Your task to perform on an android device: turn on translation in the chrome app Image 0: 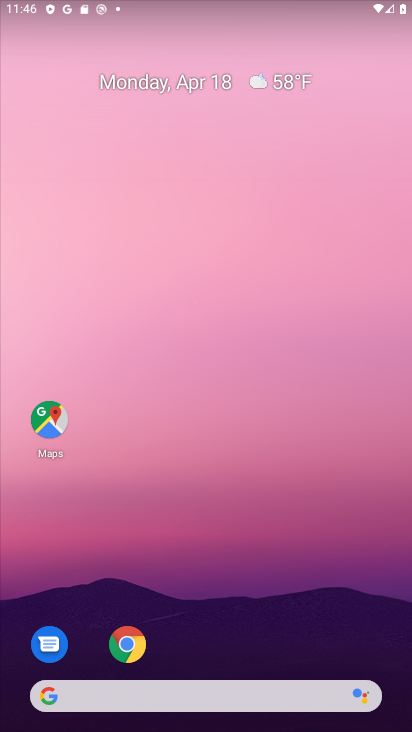
Step 0: click (315, 95)
Your task to perform on an android device: turn on translation in the chrome app Image 1: 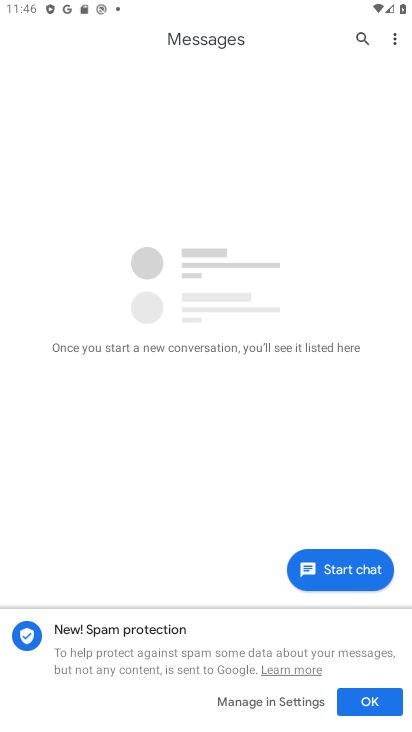
Step 1: drag from (265, 591) to (395, 14)
Your task to perform on an android device: turn on translation in the chrome app Image 2: 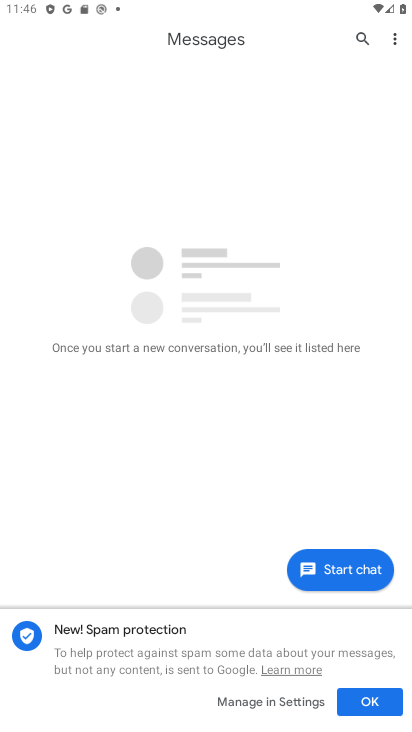
Step 2: press home button
Your task to perform on an android device: turn on translation in the chrome app Image 3: 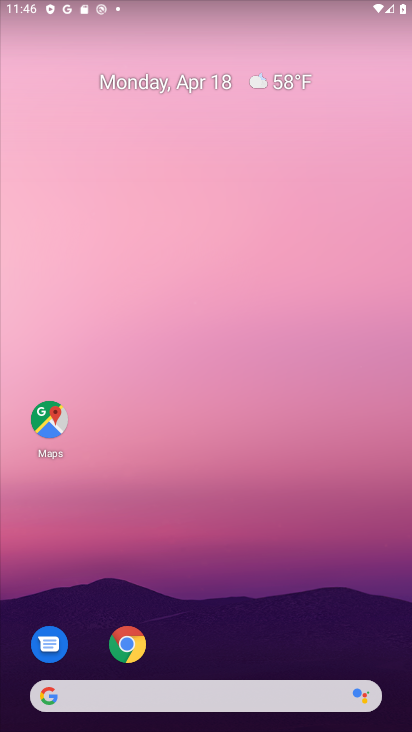
Step 3: click (120, 654)
Your task to perform on an android device: turn on translation in the chrome app Image 4: 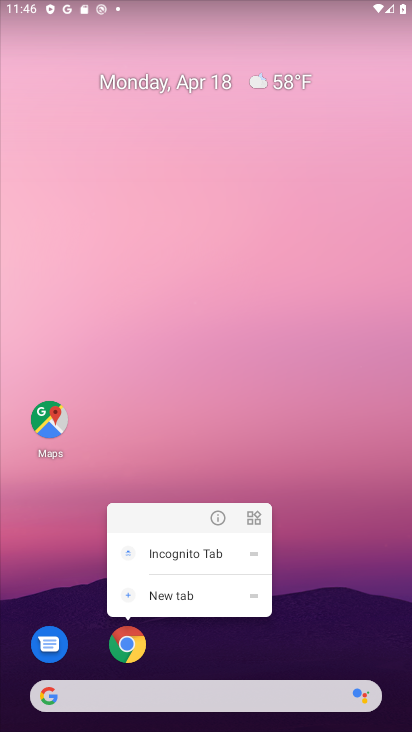
Step 4: click (131, 648)
Your task to perform on an android device: turn on translation in the chrome app Image 5: 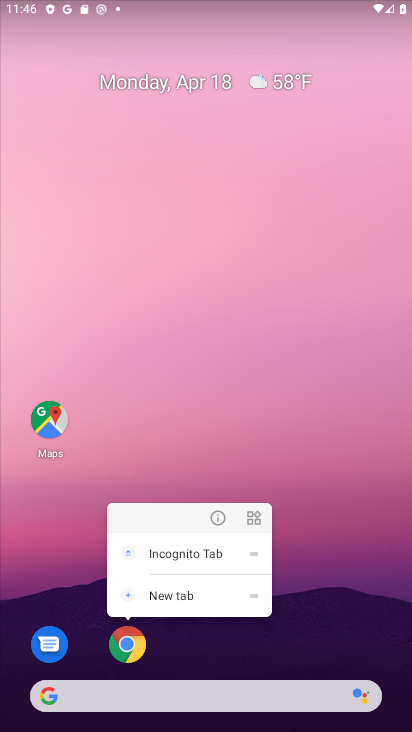
Step 5: click (131, 648)
Your task to perform on an android device: turn on translation in the chrome app Image 6: 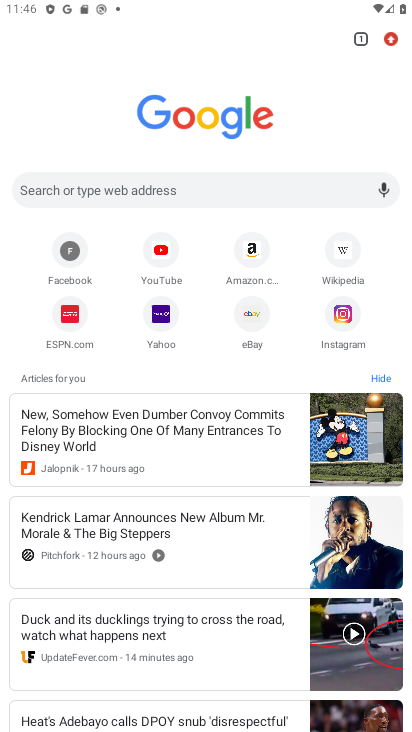
Step 6: click (387, 46)
Your task to perform on an android device: turn on translation in the chrome app Image 7: 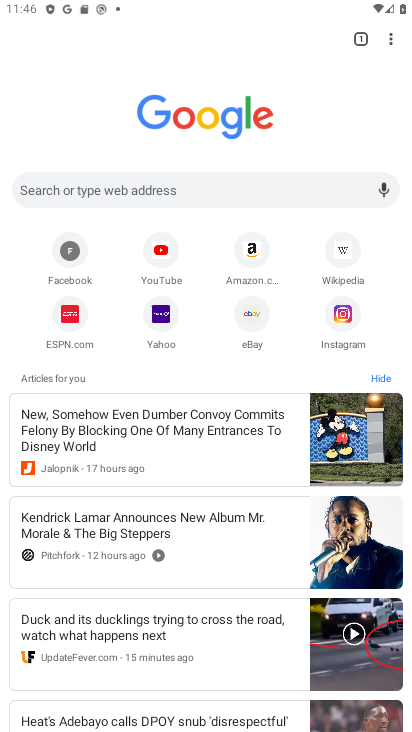
Step 7: drag from (390, 38) to (278, 381)
Your task to perform on an android device: turn on translation in the chrome app Image 8: 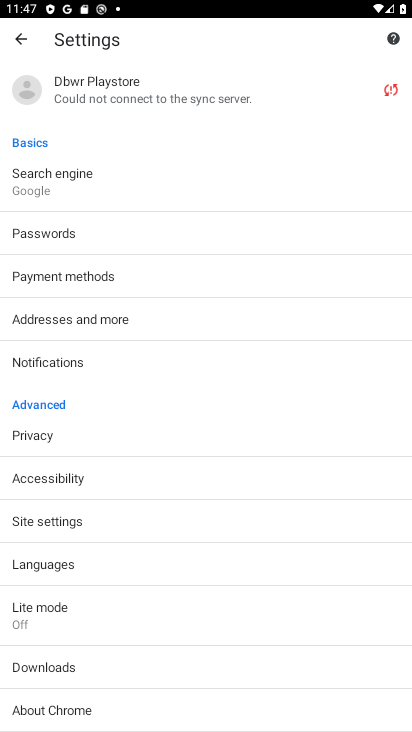
Step 8: click (47, 572)
Your task to perform on an android device: turn on translation in the chrome app Image 9: 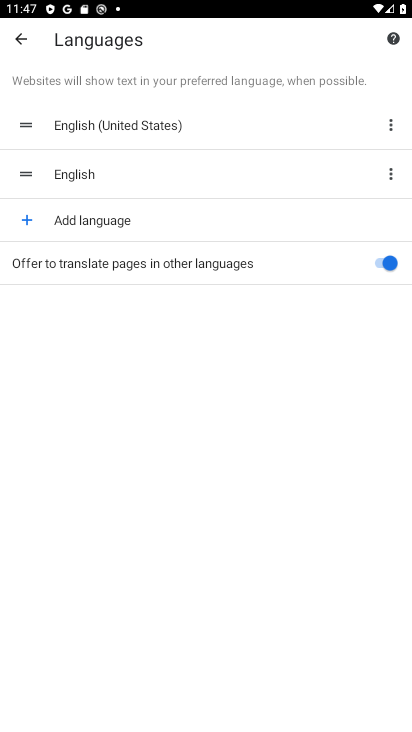
Step 9: task complete